Your task to perform on an android device: Open the calendar app, open the side menu, and click the "Day" option Image 0: 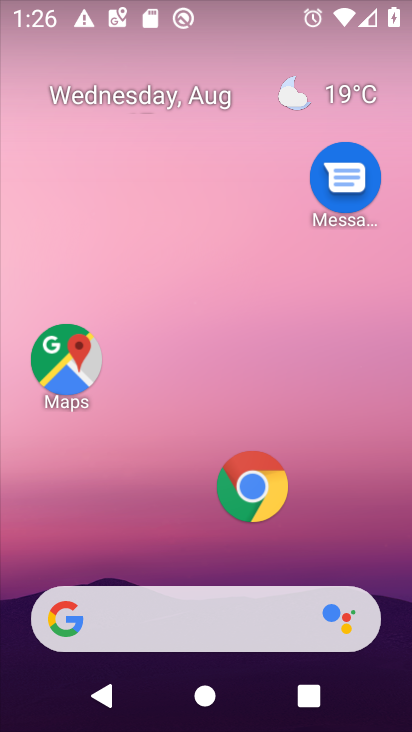
Step 0: drag from (134, 422) to (263, 15)
Your task to perform on an android device: Open the calendar app, open the side menu, and click the "Day" option Image 1: 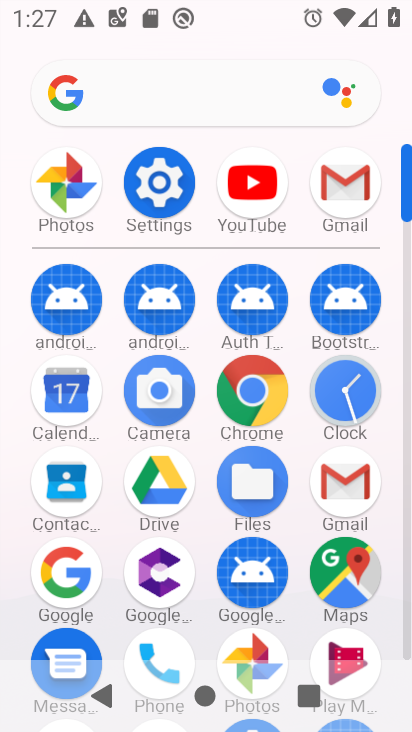
Step 1: click (76, 405)
Your task to perform on an android device: Open the calendar app, open the side menu, and click the "Day" option Image 2: 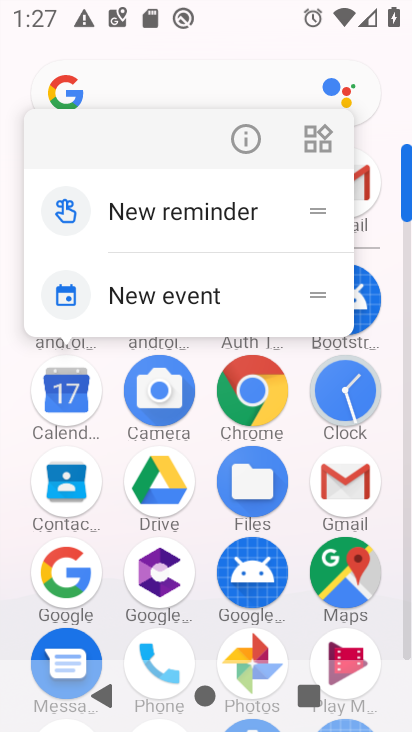
Step 2: click (75, 390)
Your task to perform on an android device: Open the calendar app, open the side menu, and click the "Day" option Image 3: 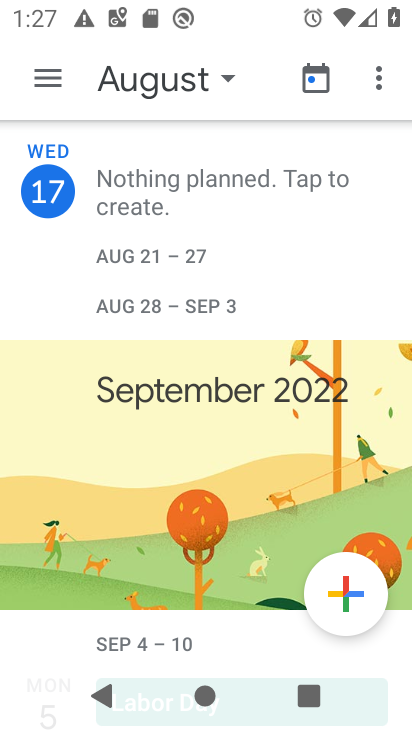
Step 3: click (53, 70)
Your task to perform on an android device: Open the calendar app, open the side menu, and click the "Day" option Image 4: 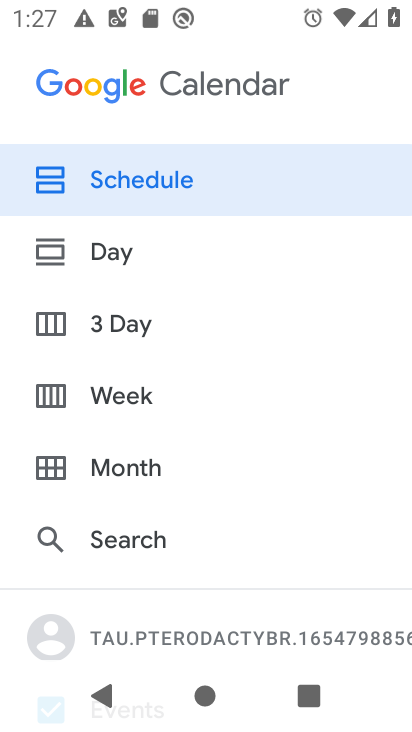
Step 4: click (79, 248)
Your task to perform on an android device: Open the calendar app, open the side menu, and click the "Day" option Image 5: 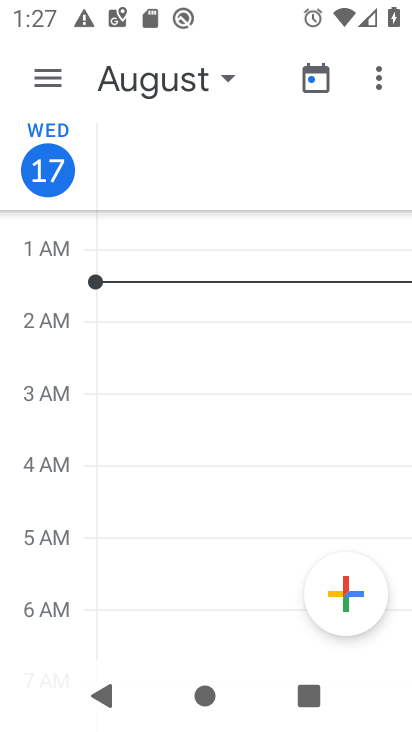
Step 5: task complete